Your task to perform on an android device: toggle data saver in the chrome app Image 0: 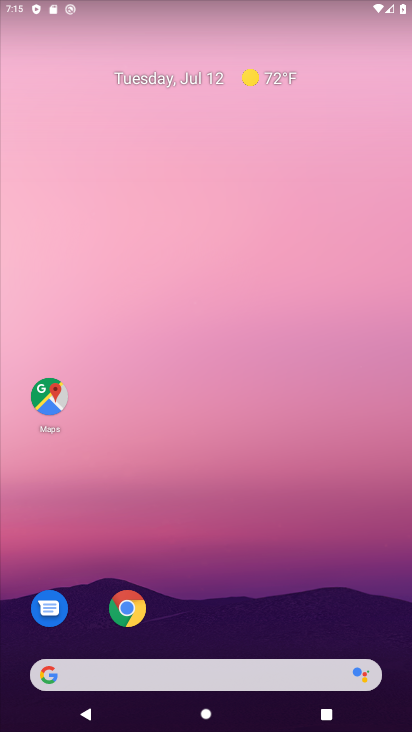
Step 0: click (129, 607)
Your task to perform on an android device: toggle data saver in the chrome app Image 1: 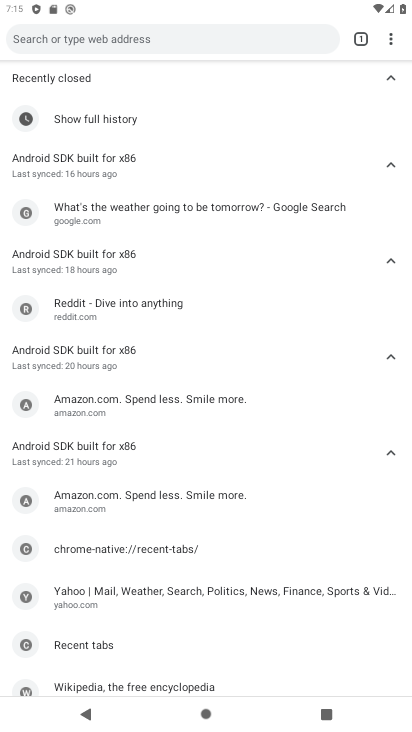
Step 1: click (392, 40)
Your task to perform on an android device: toggle data saver in the chrome app Image 2: 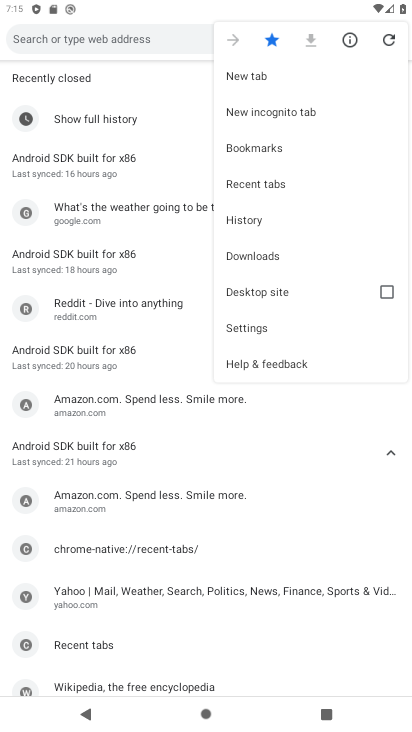
Step 2: click (252, 327)
Your task to perform on an android device: toggle data saver in the chrome app Image 3: 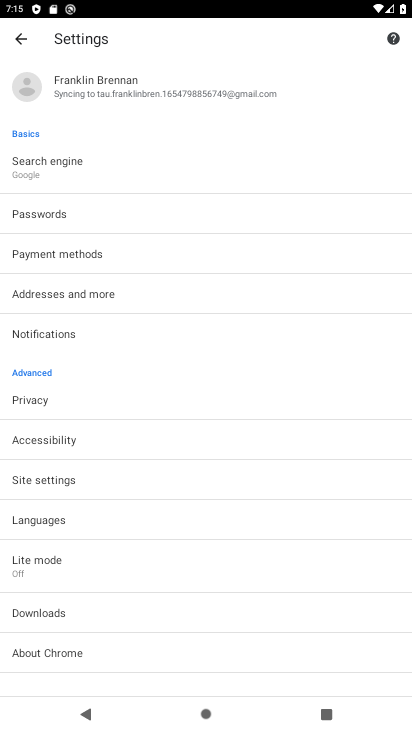
Step 3: click (48, 562)
Your task to perform on an android device: toggle data saver in the chrome app Image 4: 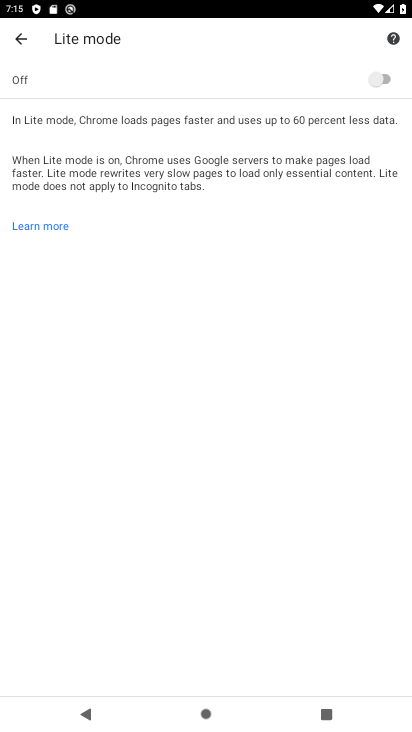
Step 4: click (374, 74)
Your task to perform on an android device: toggle data saver in the chrome app Image 5: 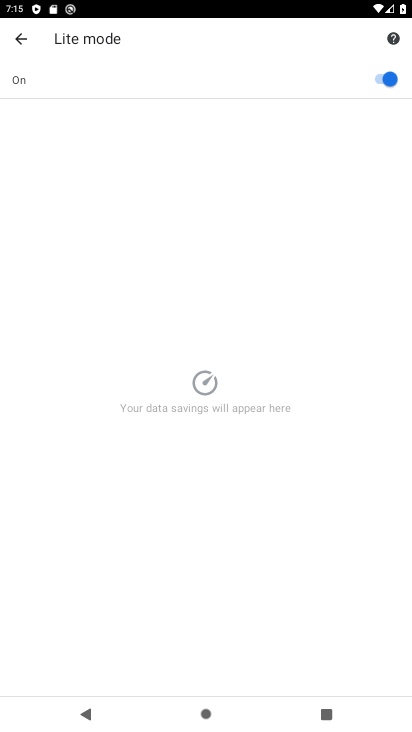
Step 5: task complete